Your task to perform on an android device: check android version Image 0: 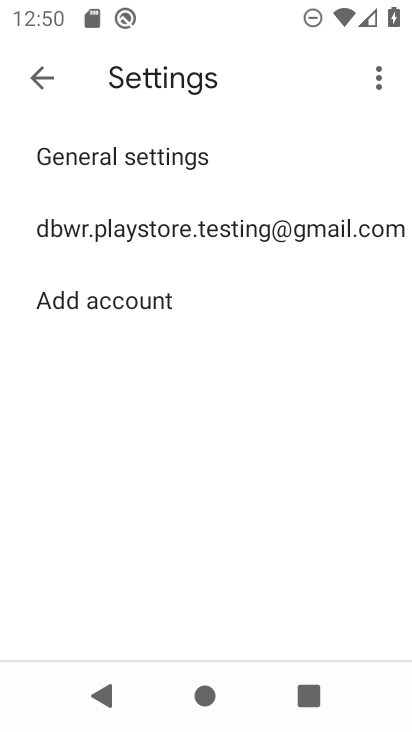
Step 0: press home button
Your task to perform on an android device: check android version Image 1: 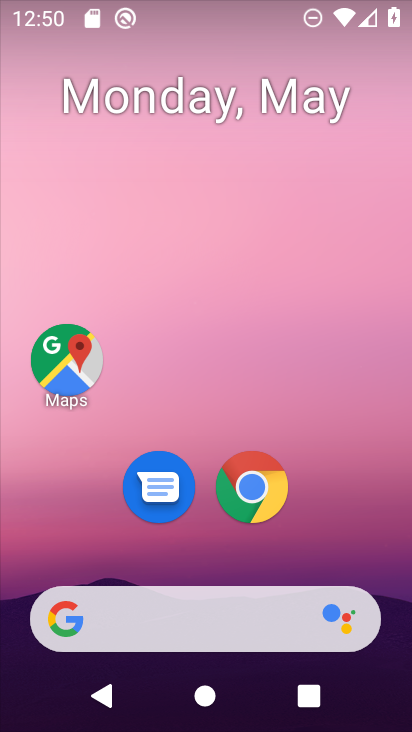
Step 1: drag from (315, 516) to (183, 78)
Your task to perform on an android device: check android version Image 2: 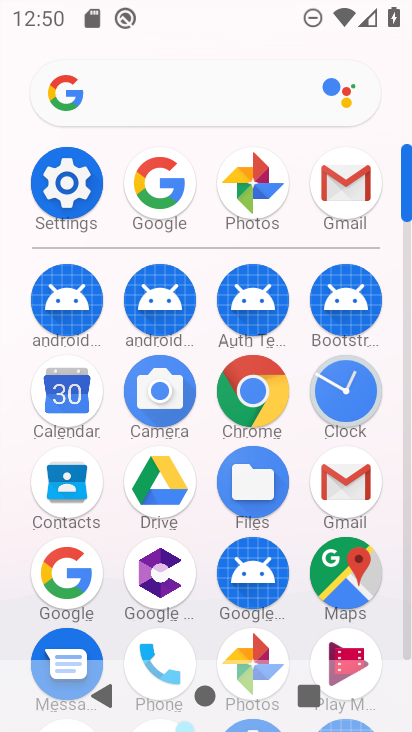
Step 2: click (68, 179)
Your task to perform on an android device: check android version Image 3: 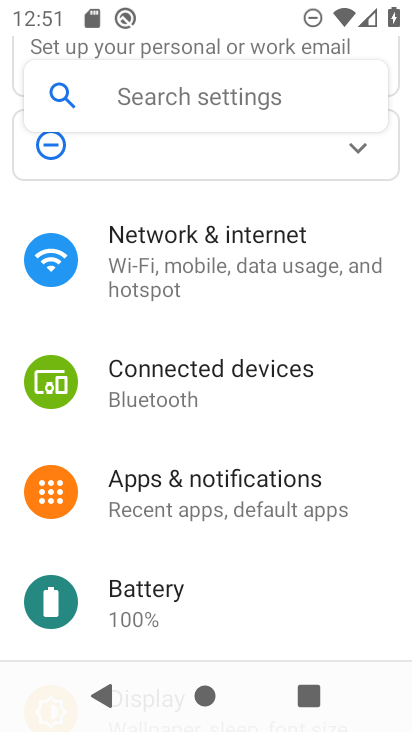
Step 3: drag from (160, 440) to (150, 322)
Your task to perform on an android device: check android version Image 4: 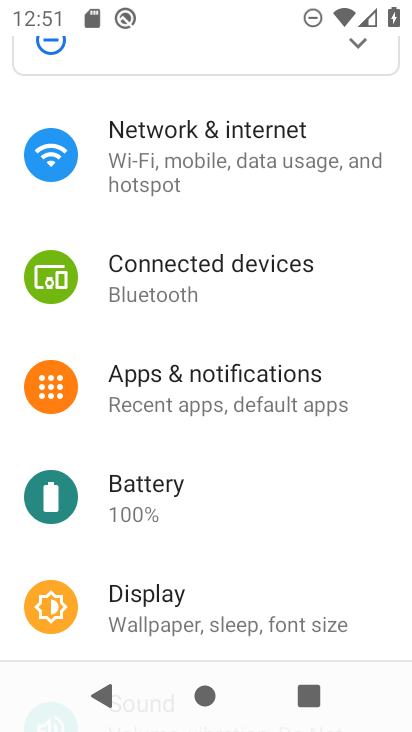
Step 4: drag from (169, 458) to (169, 331)
Your task to perform on an android device: check android version Image 5: 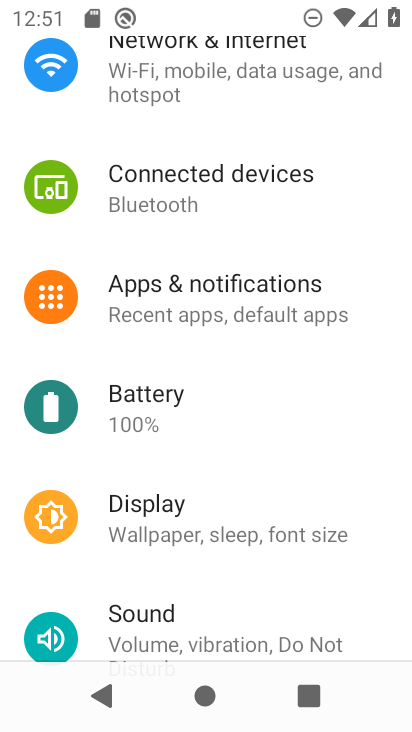
Step 5: drag from (193, 468) to (198, 302)
Your task to perform on an android device: check android version Image 6: 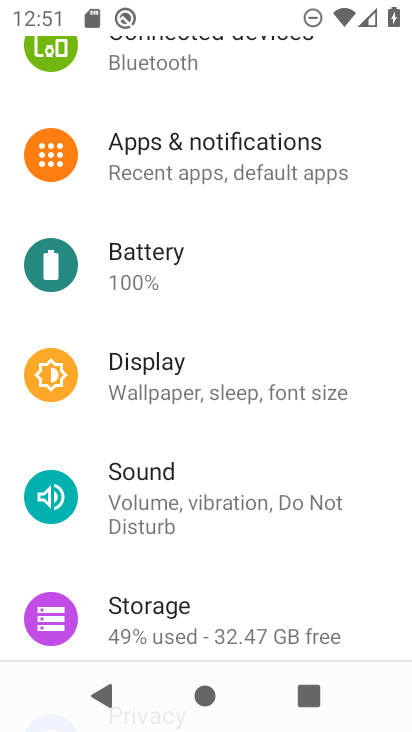
Step 6: drag from (170, 452) to (180, 299)
Your task to perform on an android device: check android version Image 7: 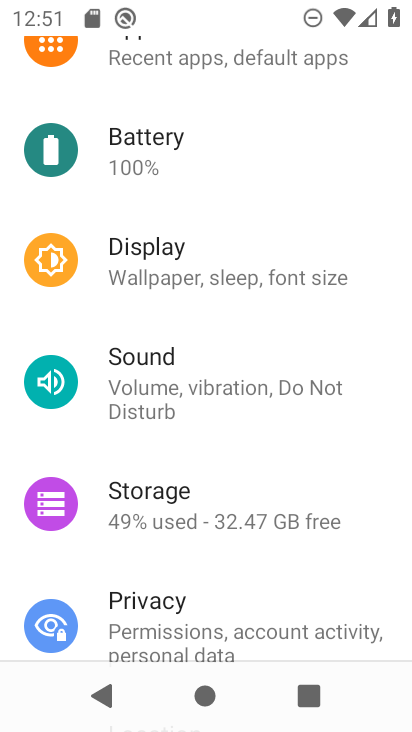
Step 7: drag from (150, 448) to (200, 333)
Your task to perform on an android device: check android version Image 8: 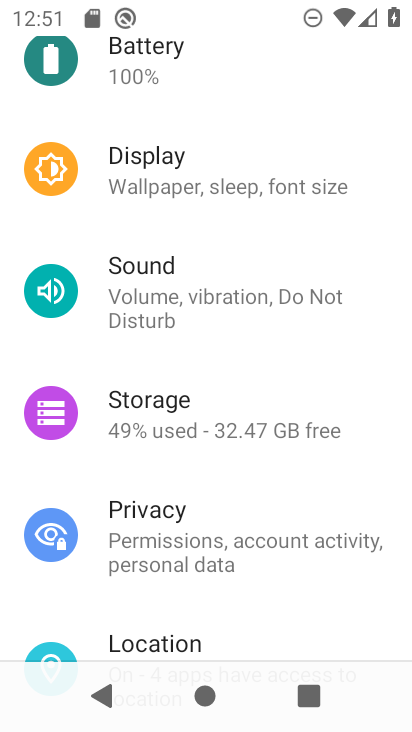
Step 8: drag from (147, 511) to (169, 311)
Your task to perform on an android device: check android version Image 9: 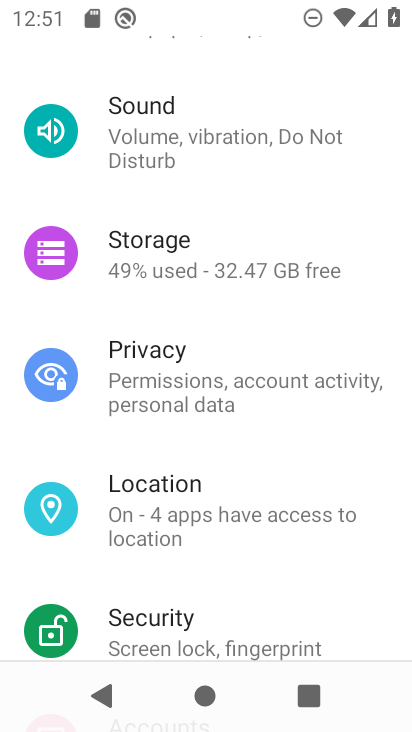
Step 9: drag from (209, 582) to (293, 188)
Your task to perform on an android device: check android version Image 10: 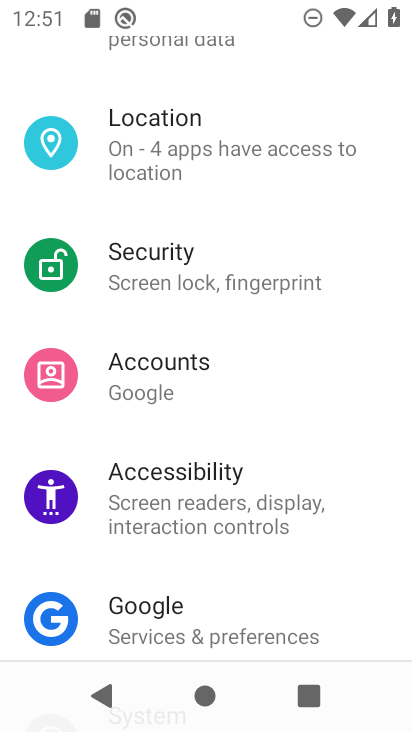
Step 10: drag from (203, 562) to (239, 263)
Your task to perform on an android device: check android version Image 11: 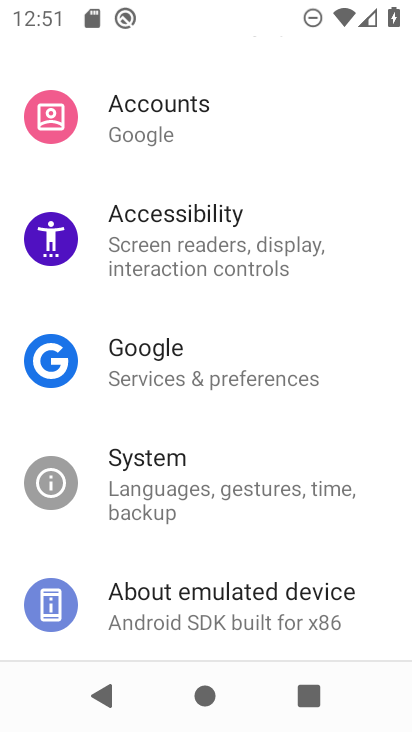
Step 11: click (202, 616)
Your task to perform on an android device: check android version Image 12: 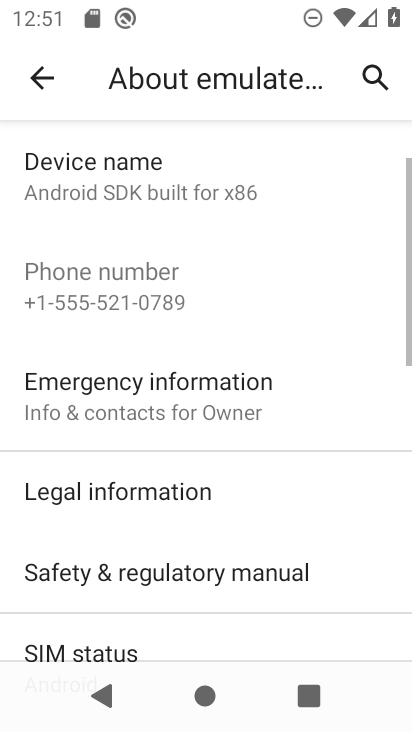
Step 12: drag from (138, 517) to (133, 164)
Your task to perform on an android device: check android version Image 13: 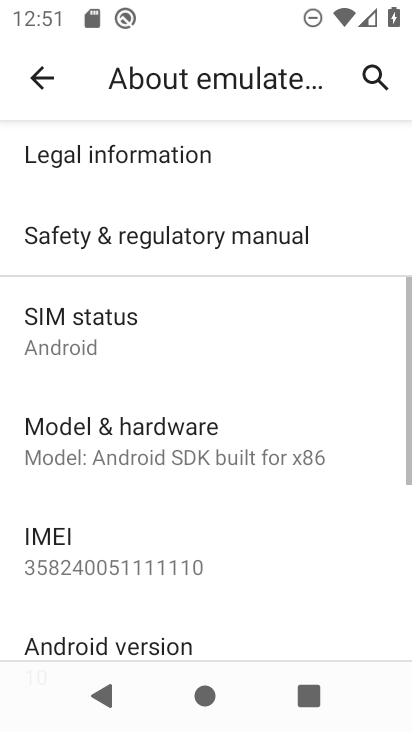
Step 13: drag from (115, 521) to (126, 304)
Your task to perform on an android device: check android version Image 14: 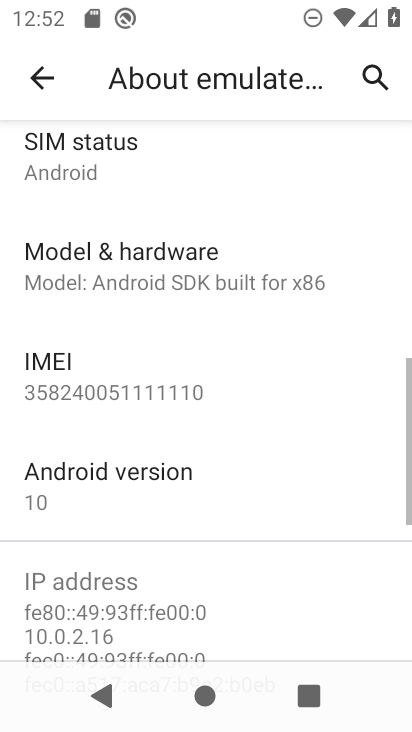
Step 14: click (144, 483)
Your task to perform on an android device: check android version Image 15: 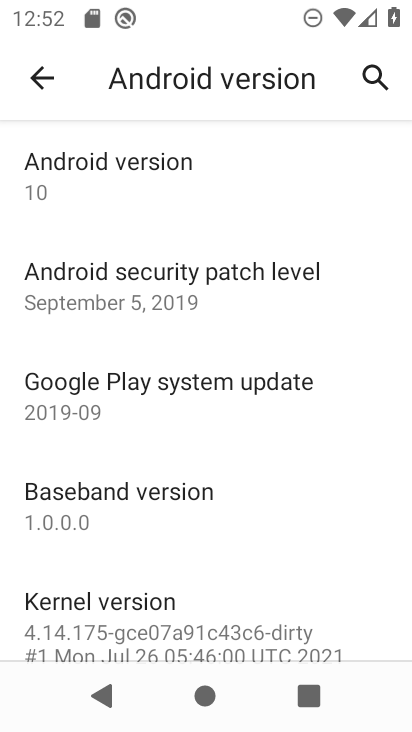
Step 15: task complete